Your task to perform on an android device: toggle priority inbox in the gmail app Image 0: 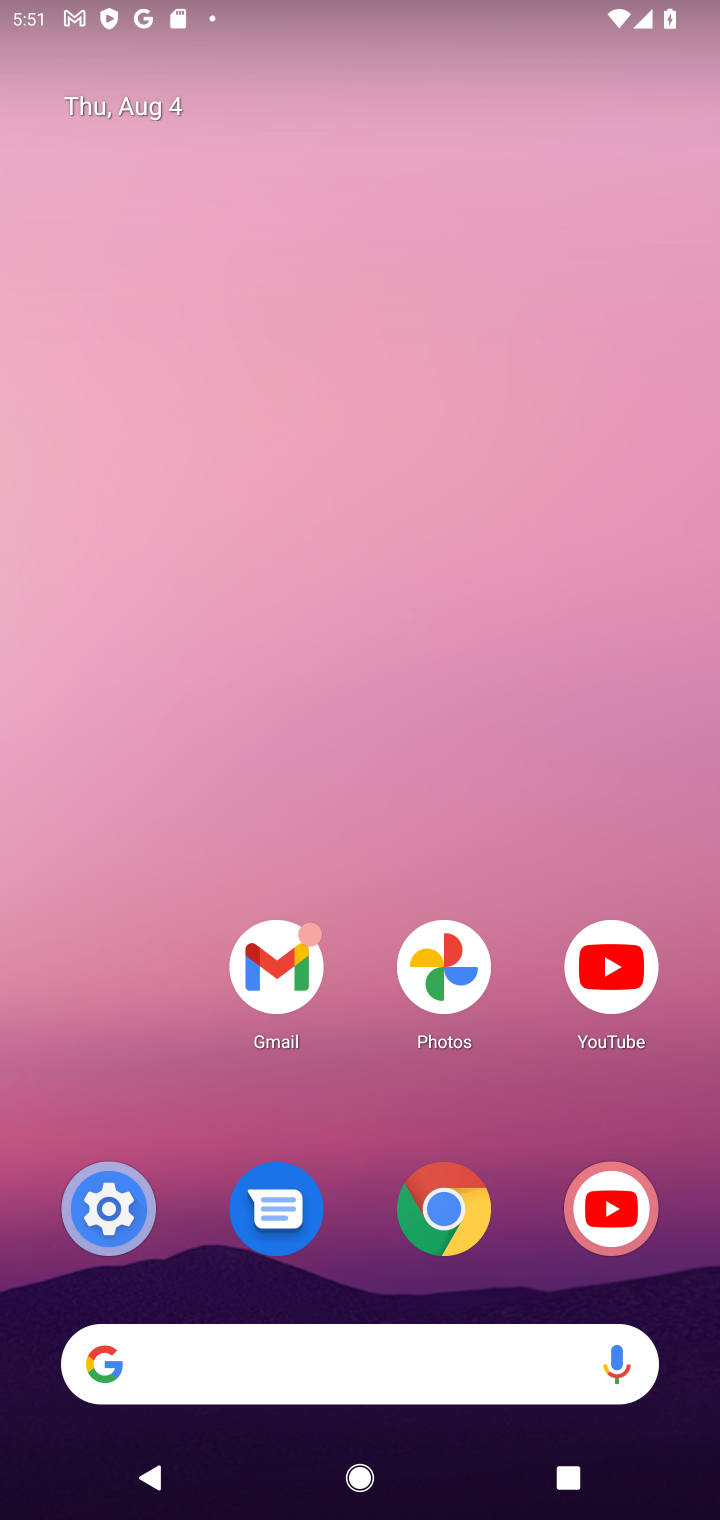
Step 0: click (314, 920)
Your task to perform on an android device: toggle priority inbox in the gmail app Image 1: 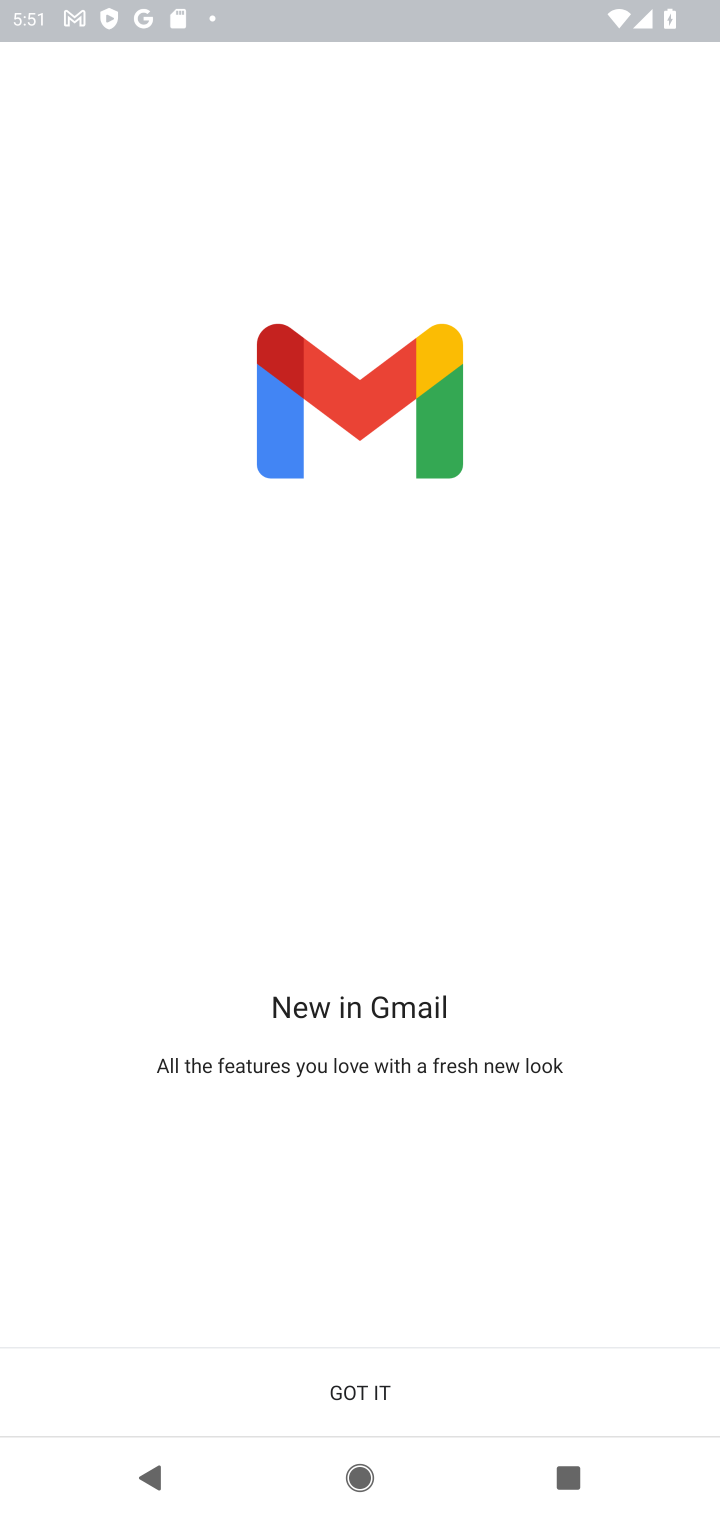
Step 1: click (474, 1381)
Your task to perform on an android device: toggle priority inbox in the gmail app Image 2: 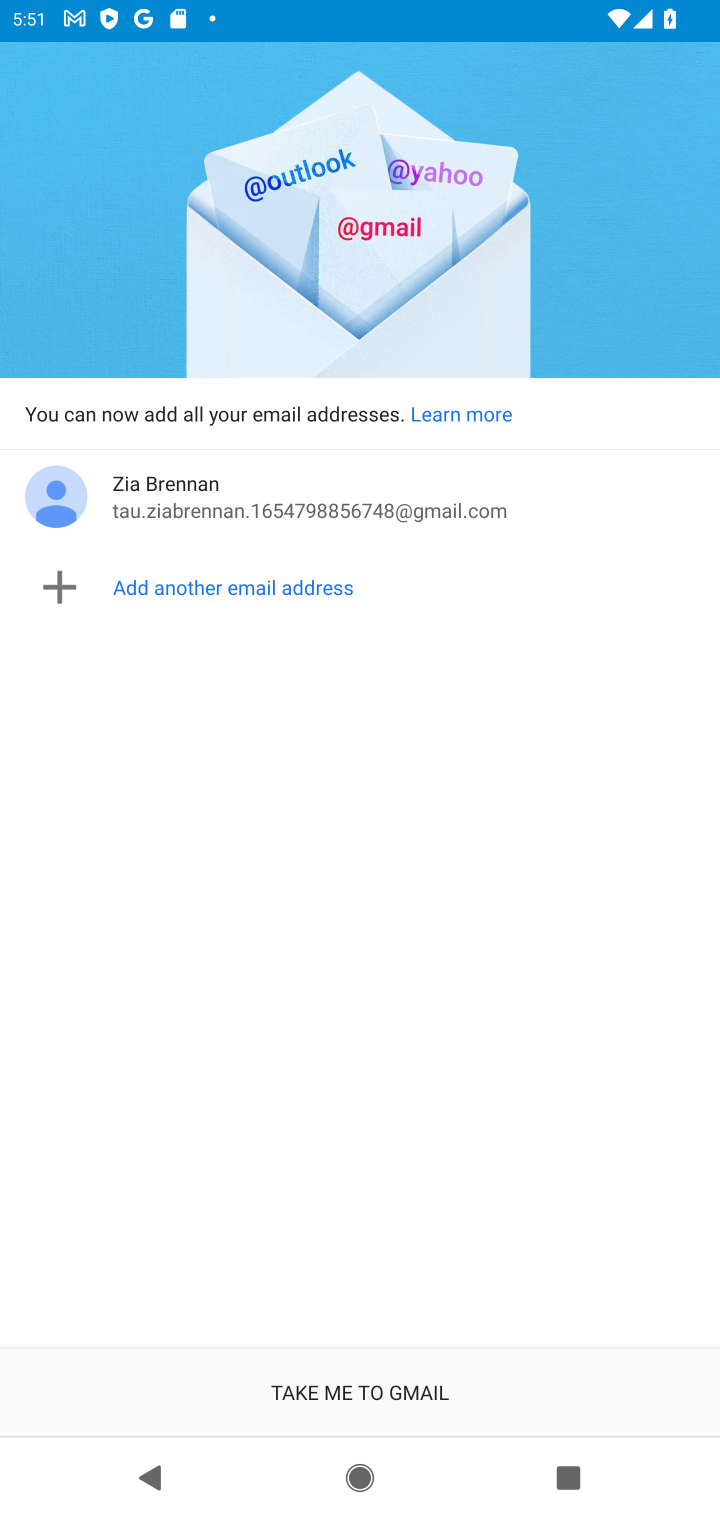
Step 2: click (474, 1381)
Your task to perform on an android device: toggle priority inbox in the gmail app Image 3: 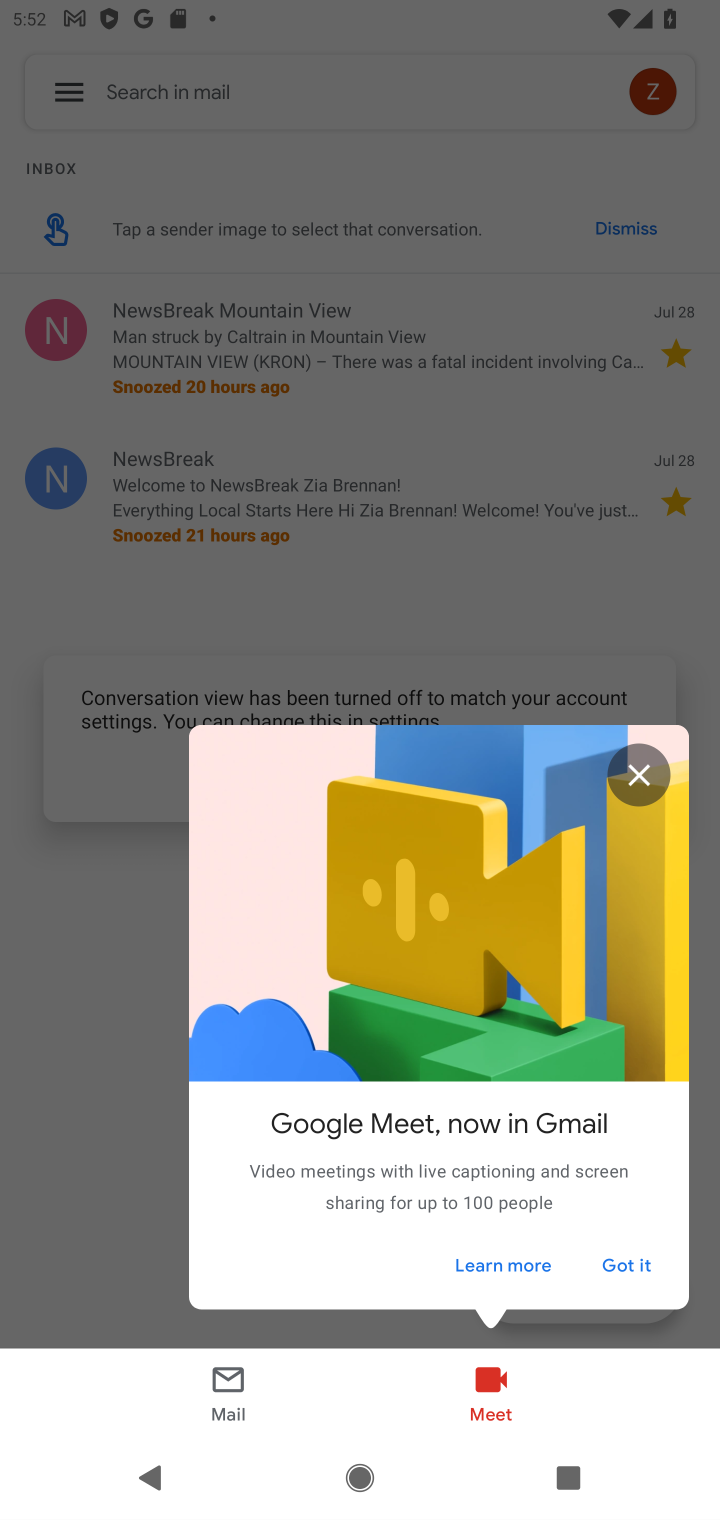
Step 3: click (644, 775)
Your task to perform on an android device: toggle priority inbox in the gmail app Image 4: 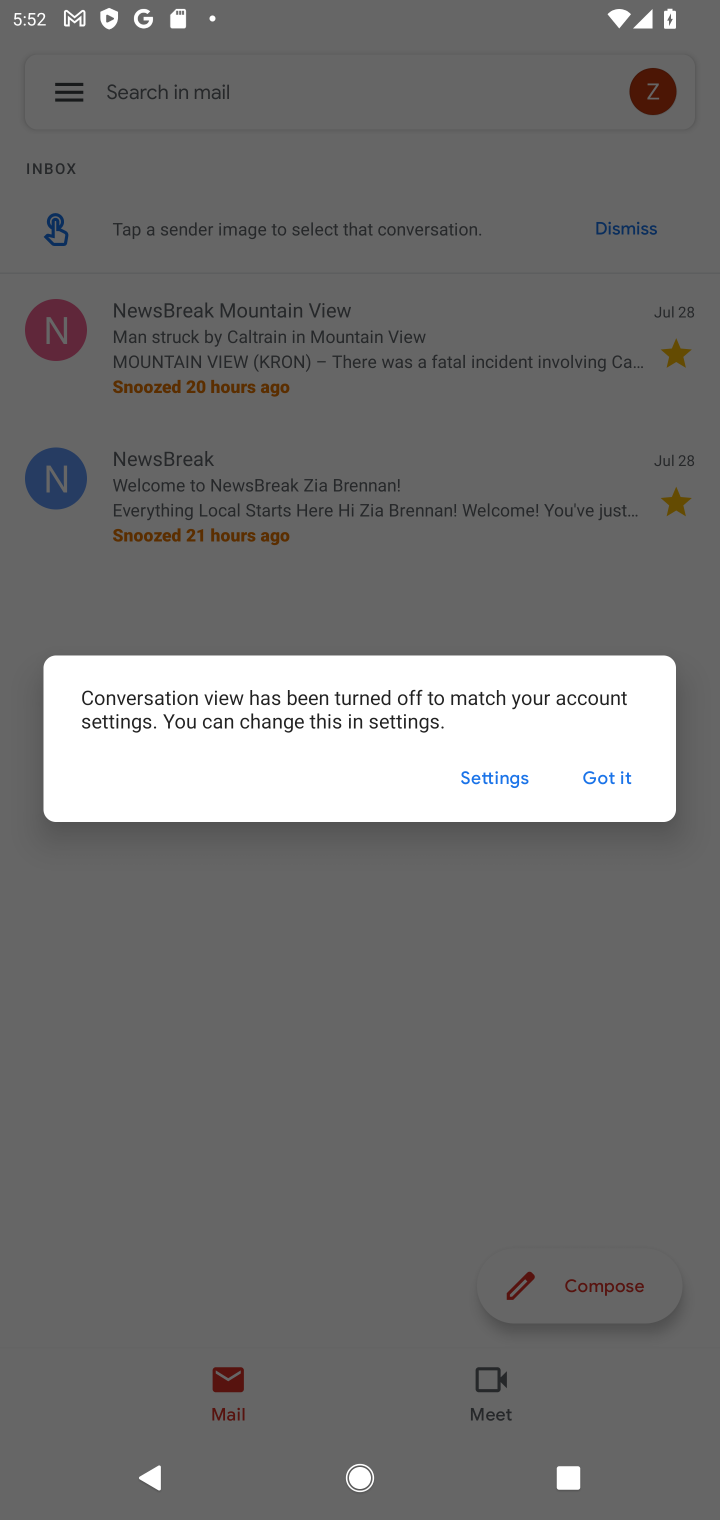
Step 4: click (599, 773)
Your task to perform on an android device: toggle priority inbox in the gmail app Image 5: 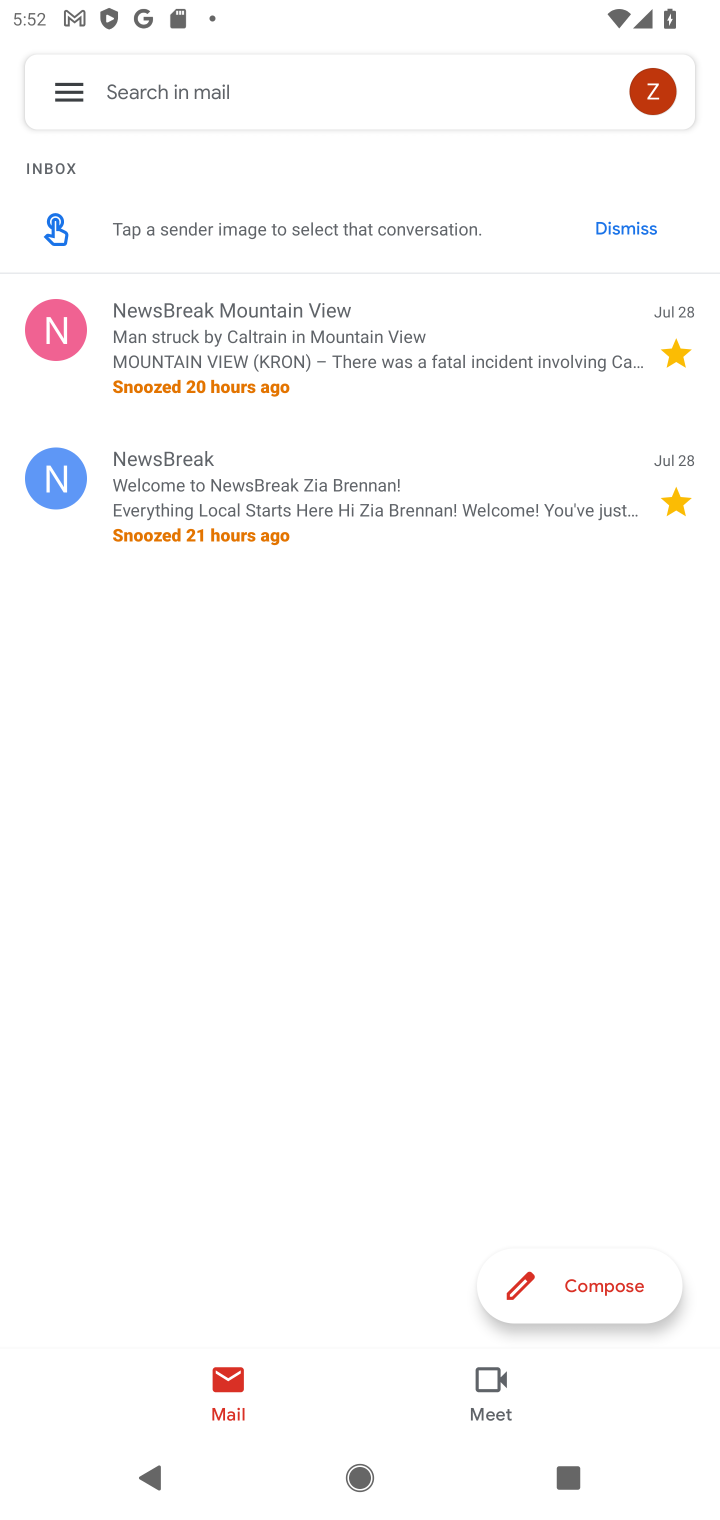
Step 5: click (67, 81)
Your task to perform on an android device: toggle priority inbox in the gmail app Image 6: 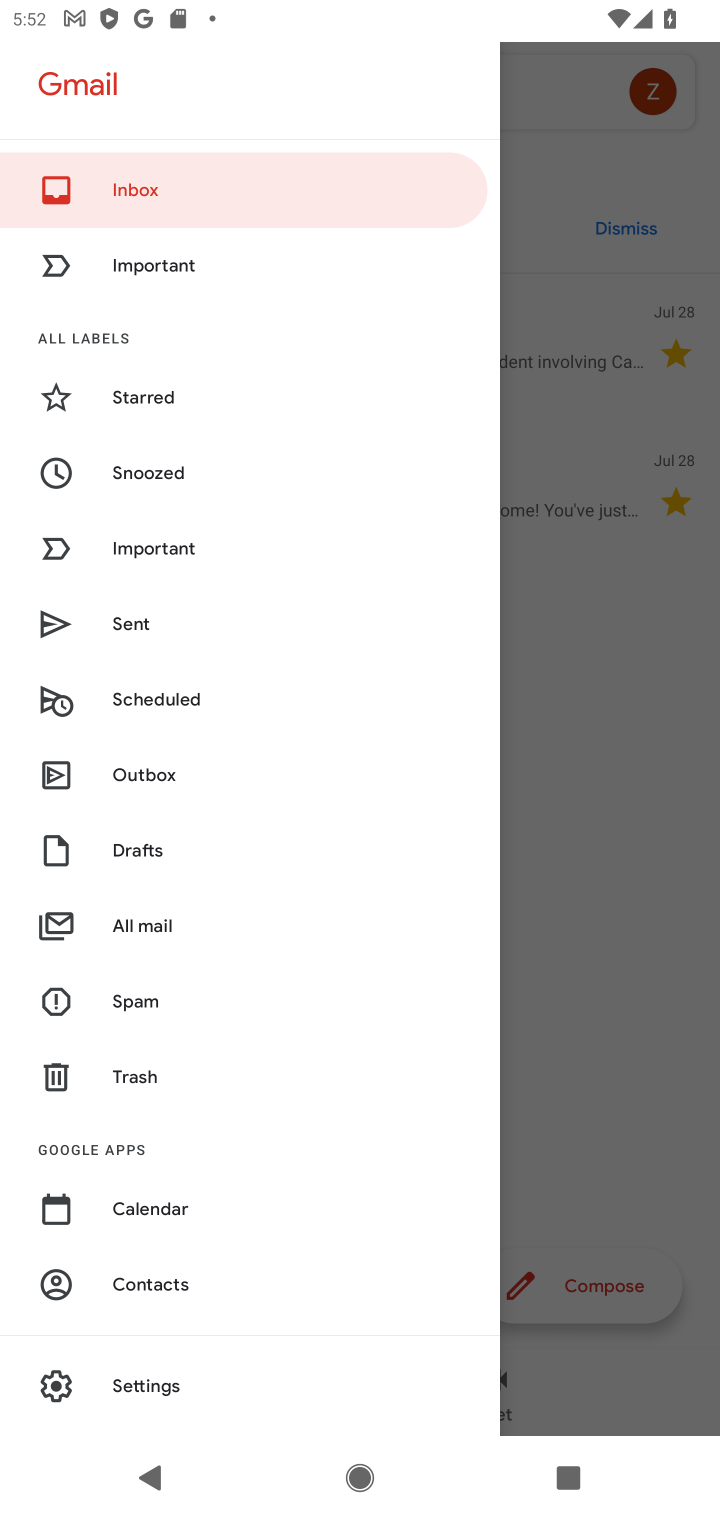
Step 6: drag from (197, 1378) to (280, 597)
Your task to perform on an android device: toggle priority inbox in the gmail app Image 7: 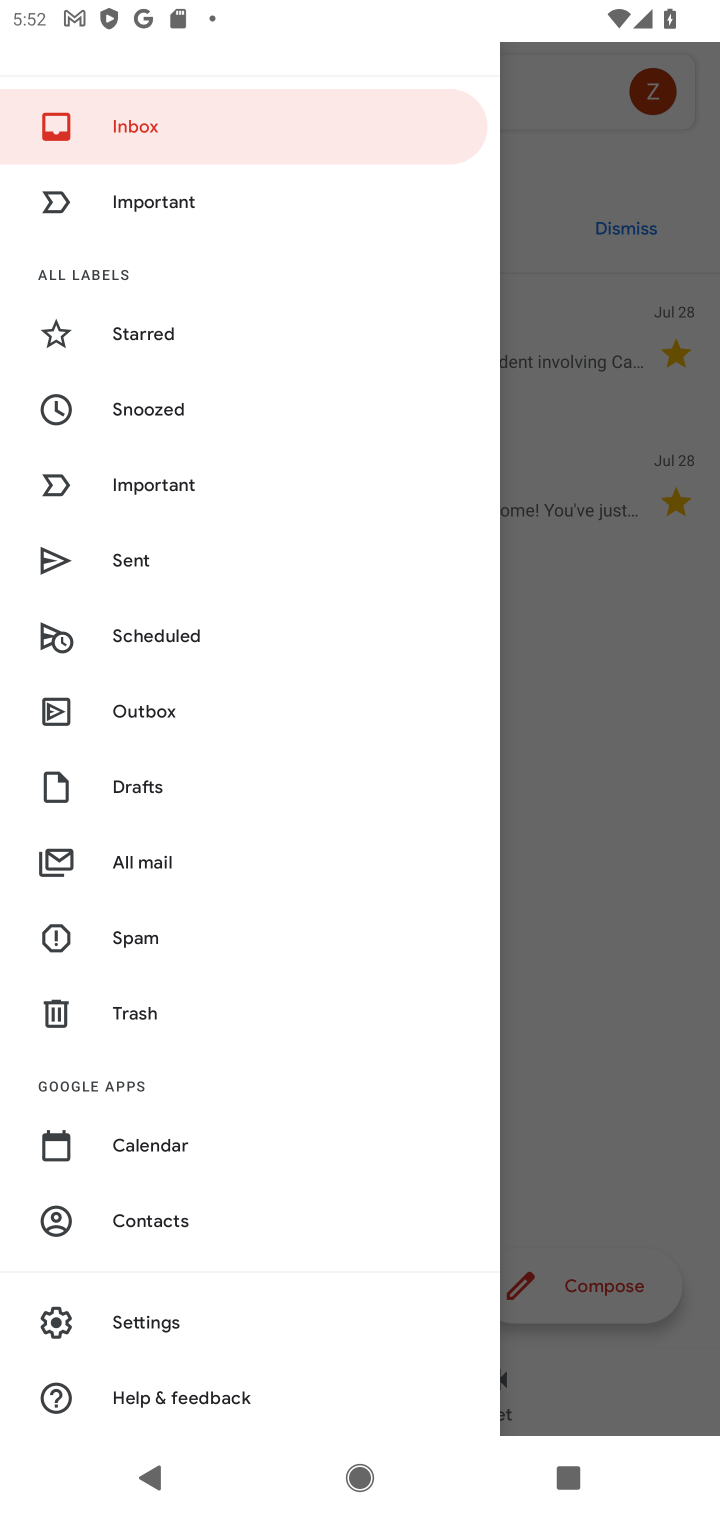
Step 7: click (189, 1314)
Your task to perform on an android device: toggle priority inbox in the gmail app Image 8: 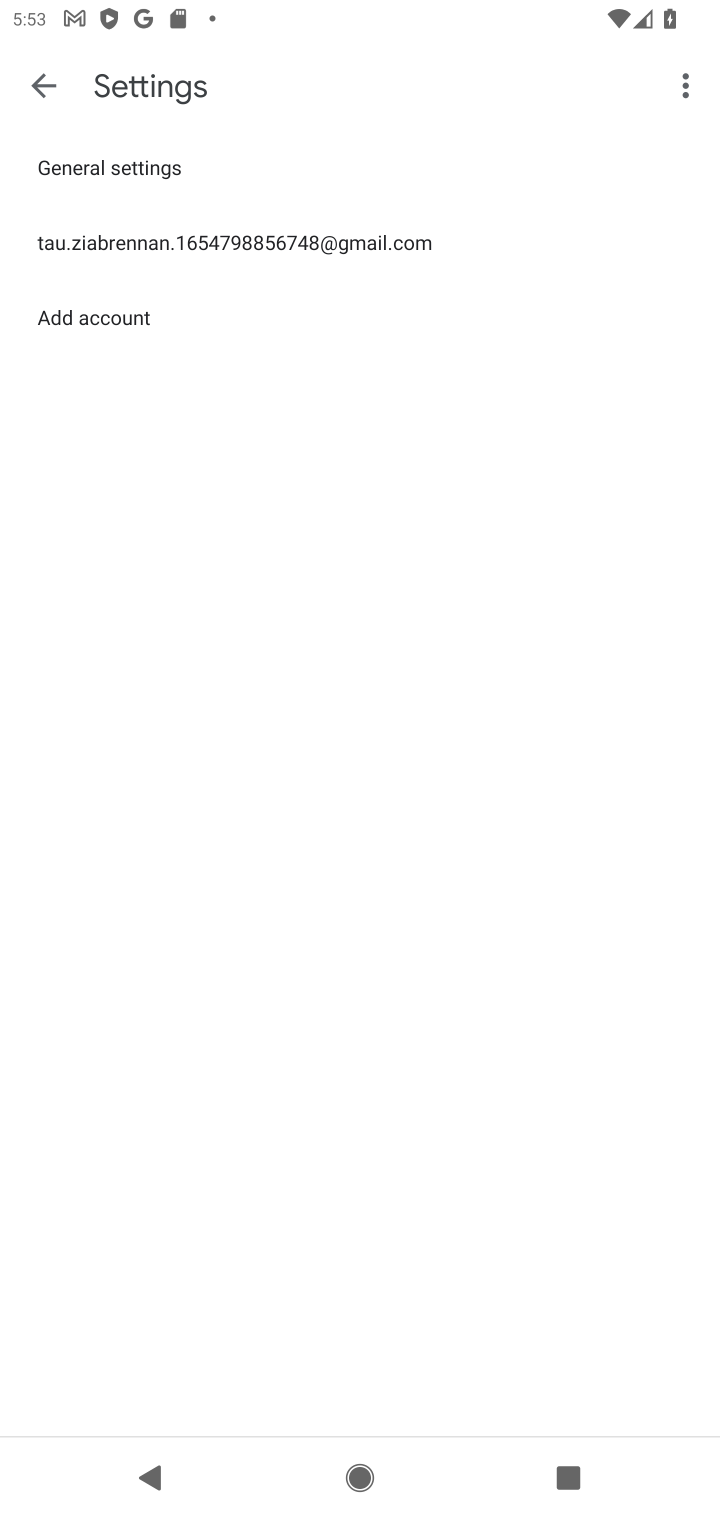
Step 8: click (335, 236)
Your task to perform on an android device: toggle priority inbox in the gmail app Image 9: 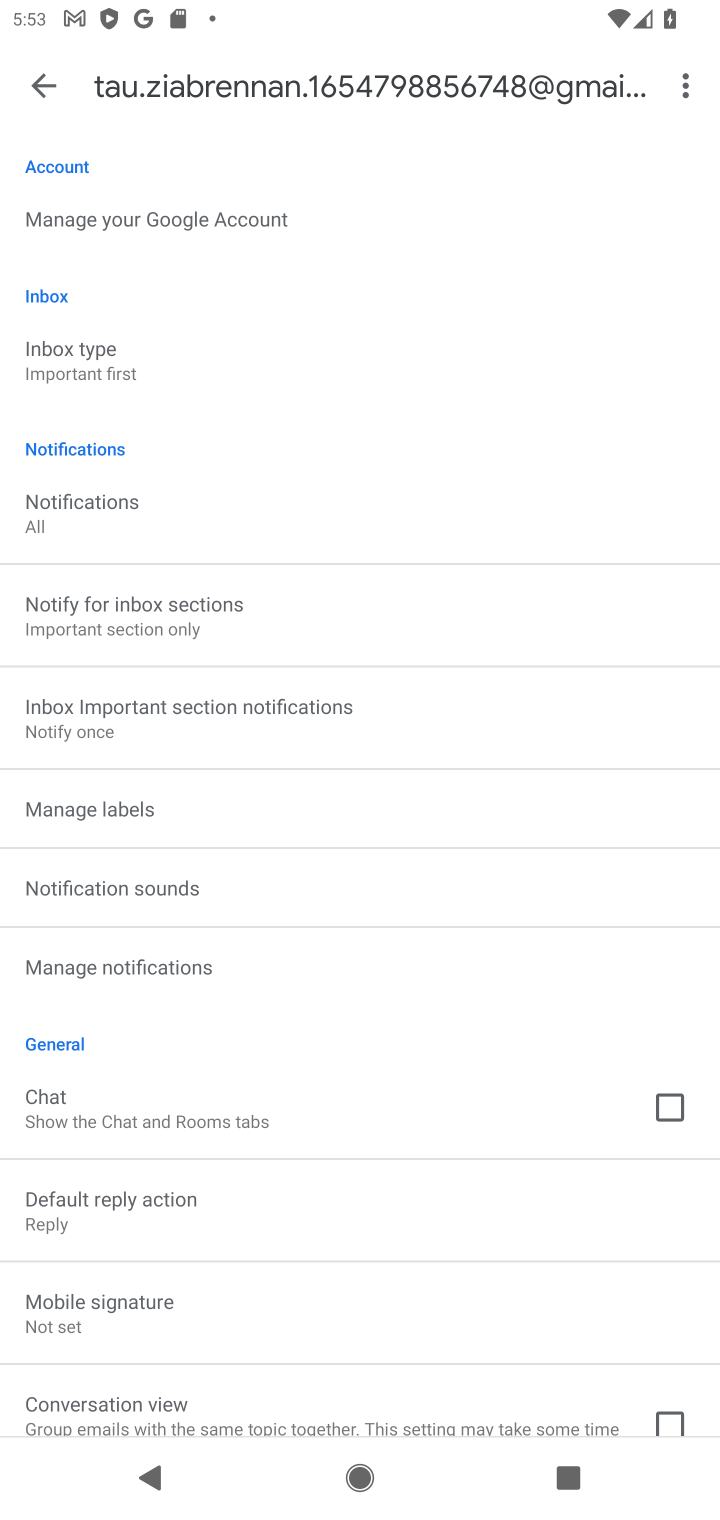
Step 9: click (114, 378)
Your task to perform on an android device: toggle priority inbox in the gmail app Image 10: 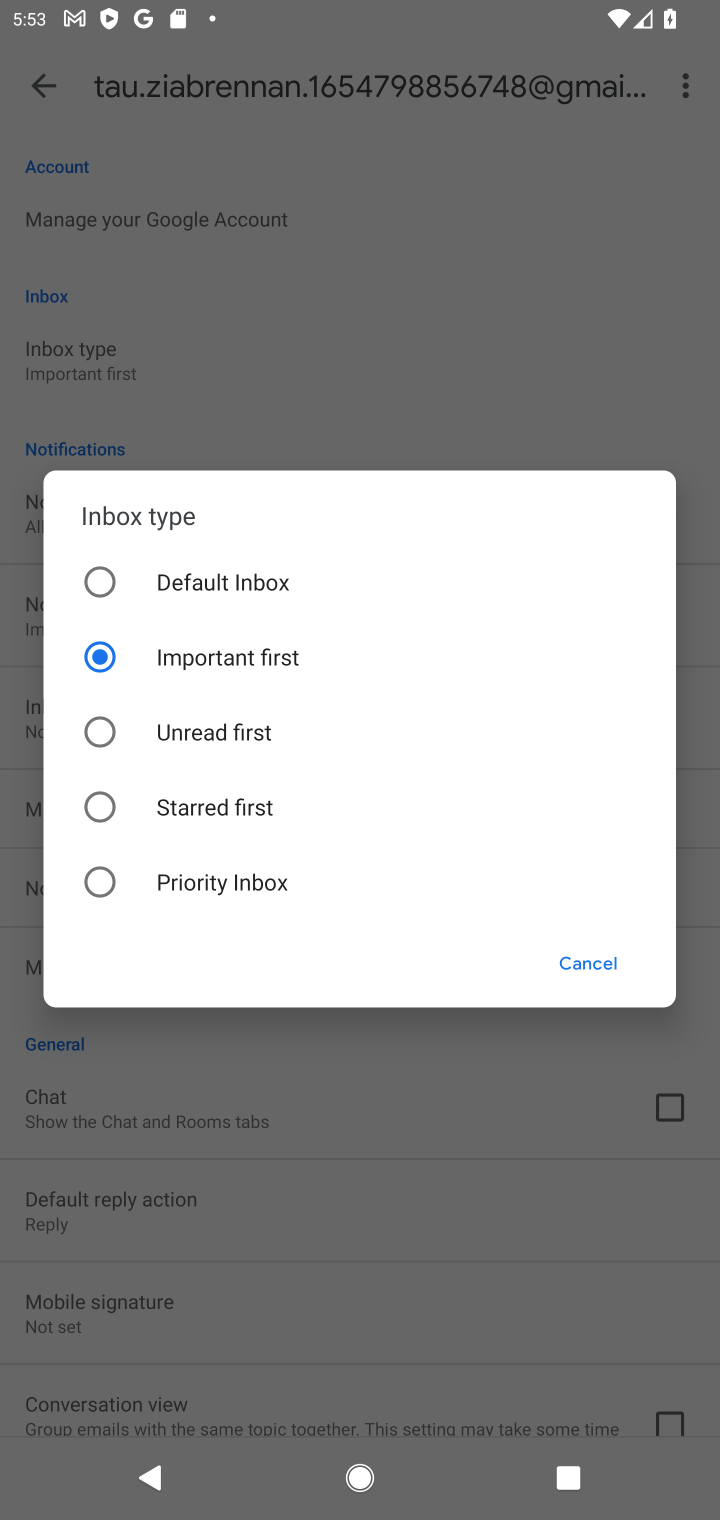
Step 10: click (197, 881)
Your task to perform on an android device: toggle priority inbox in the gmail app Image 11: 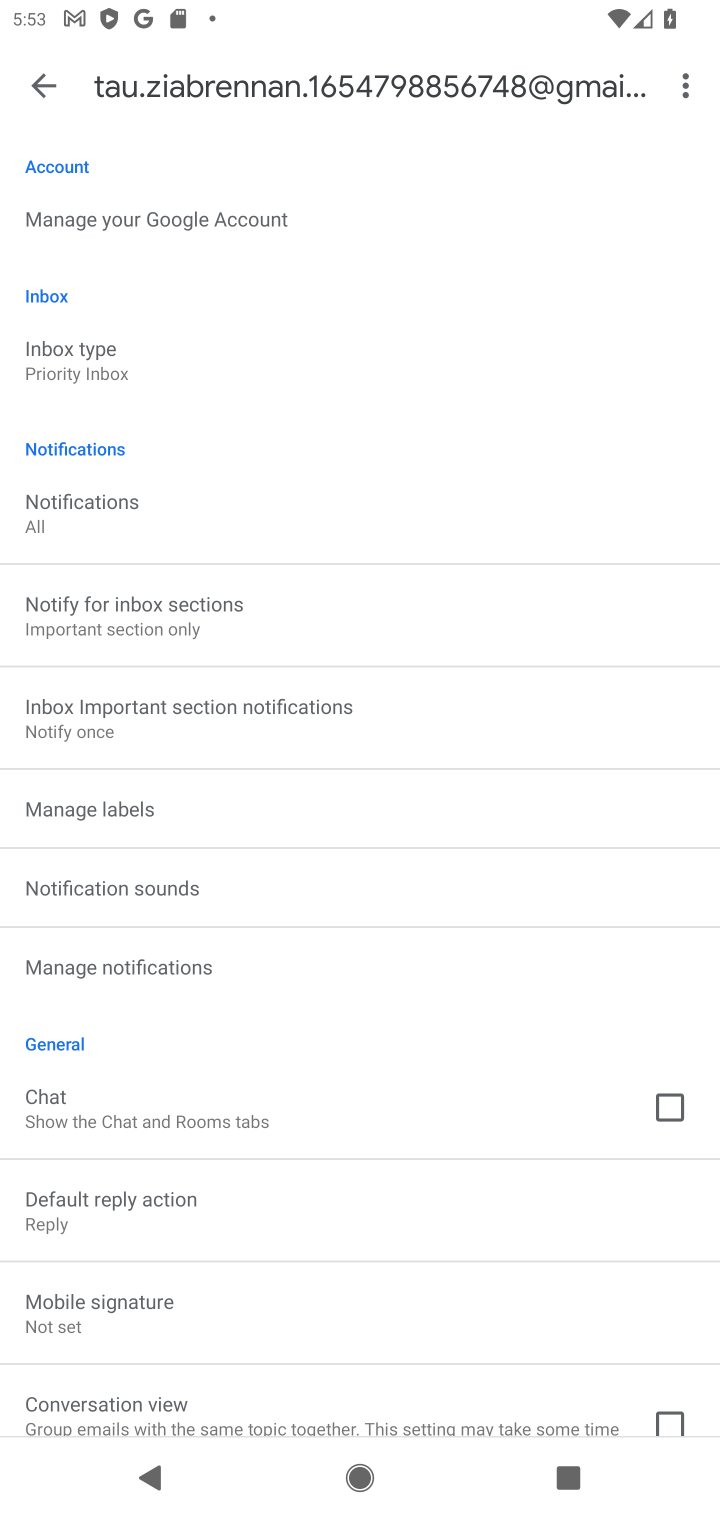
Step 11: task complete